Your task to perform on an android device: Search for Italian restaurants on Maps Image 0: 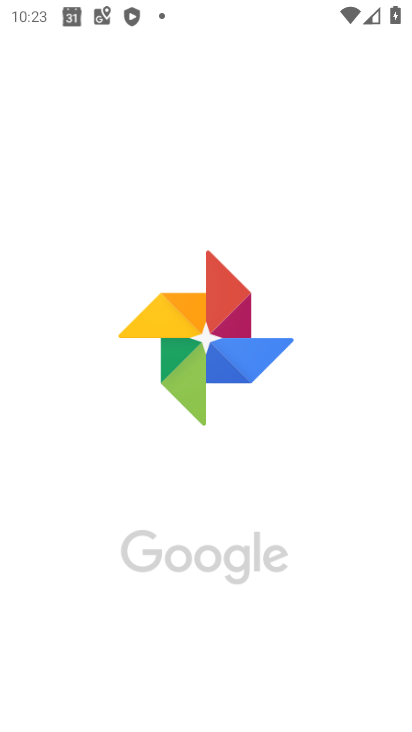
Step 0: drag from (335, 570) to (202, 159)
Your task to perform on an android device: Search for Italian restaurants on Maps Image 1: 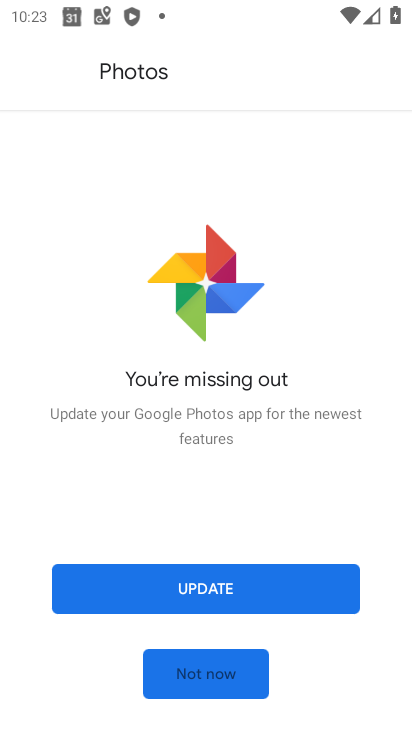
Step 1: click (275, 508)
Your task to perform on an android device: Search for Italian restaurants on Maps Image 2: 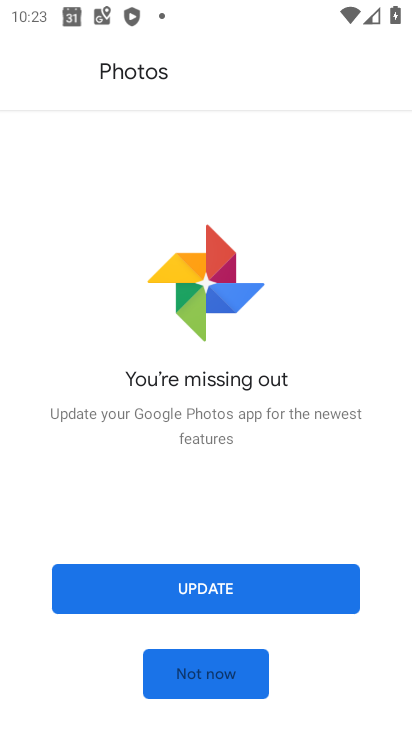
Step 2: press home button
Your task to perform on an android device: Search for Italian restaurants on Maps Image 3: 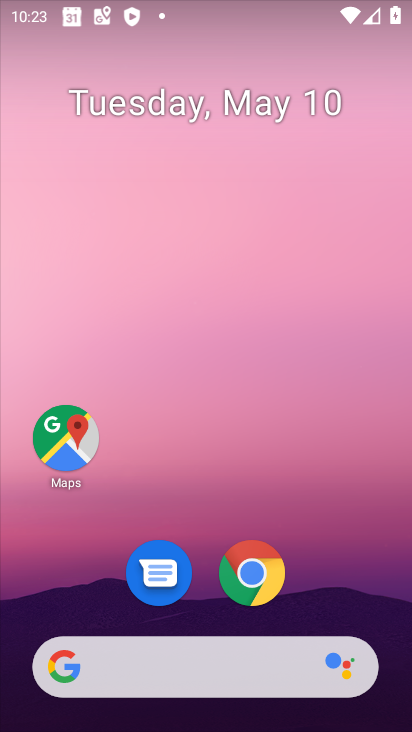
Step 3: click (67, 443)
Your task to perform on an android device: Search for Italian restaurants on Maps Image 4: 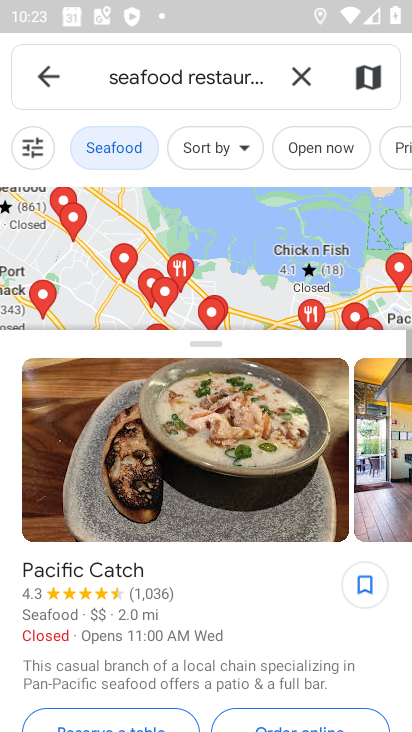
Step 4: click (295, 70)
Your task to perform on an android device: Search for Italian restaurants on Maps Image 5: 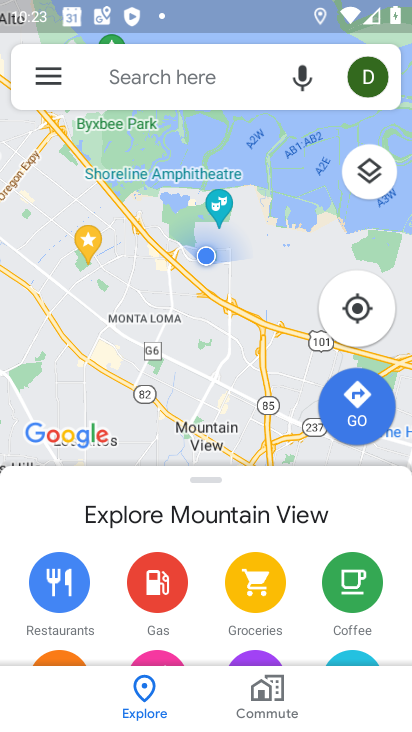
Step 5: click (150, 78)
Your task to perform on an android device: Search for Italian restaurants on Maps Image 6: 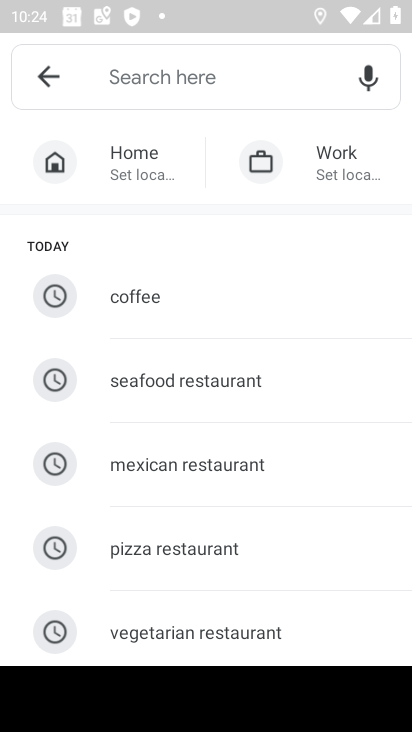
Step 6: type "italian"
Your task to perform on an android device: Search for Italian restaurants on Maps Image 7: 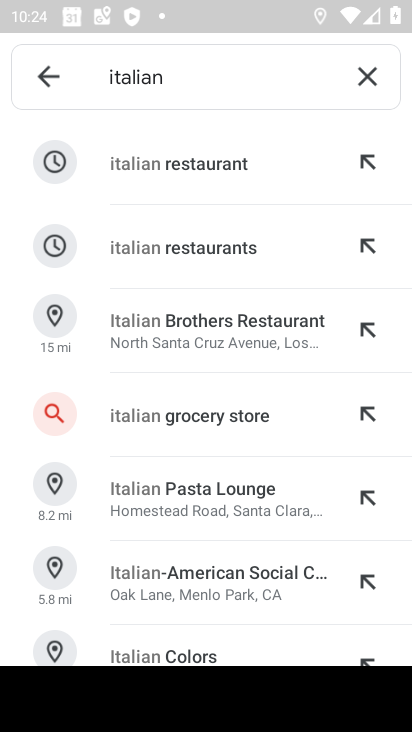
Step 7: click (177, 154)
Your task to perform on an android device: Search for Italian restaurants on Maps Image 8: 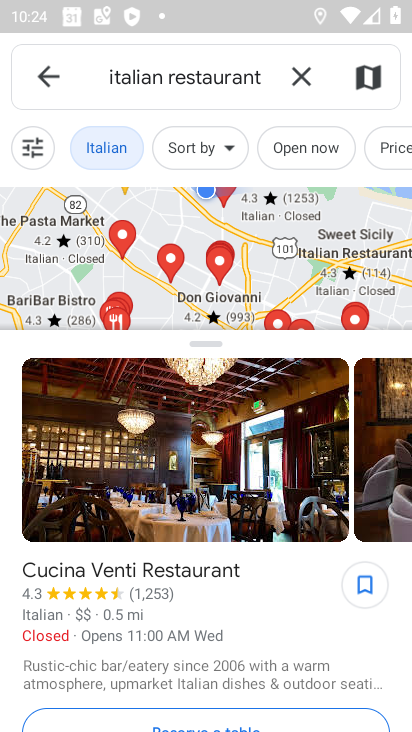
Step 8: task complete